Your task to perform on an android device: turn notification dots off Image 0: 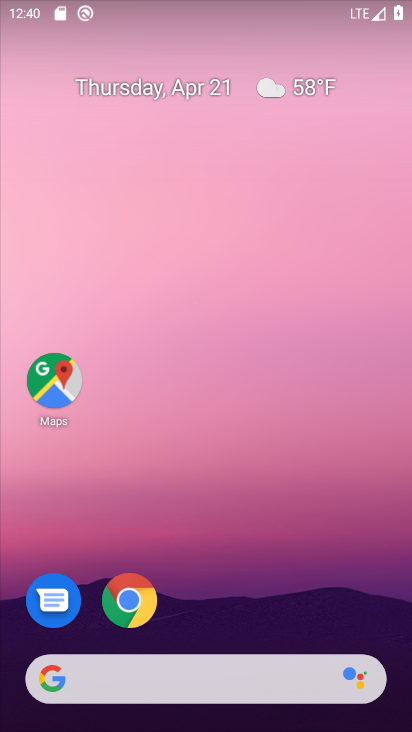
Step 0: drag from (331, 599) to (358, 79)
Your task to perform on an android device: turn notification dots off Image 1: 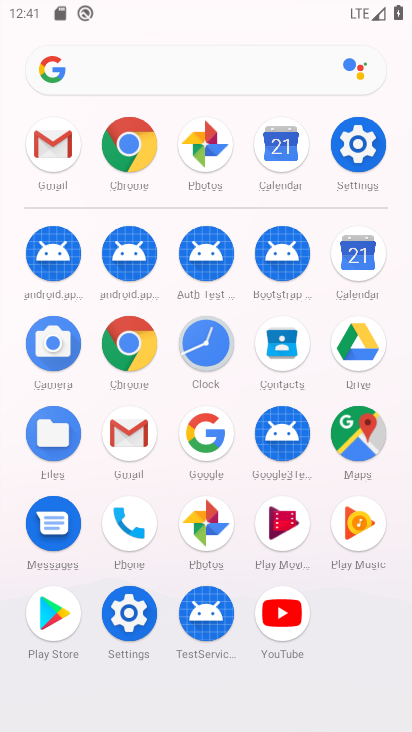
Step 1: click (365, 141)
Your task to perform on an android device: turn notification dots off Image 2: 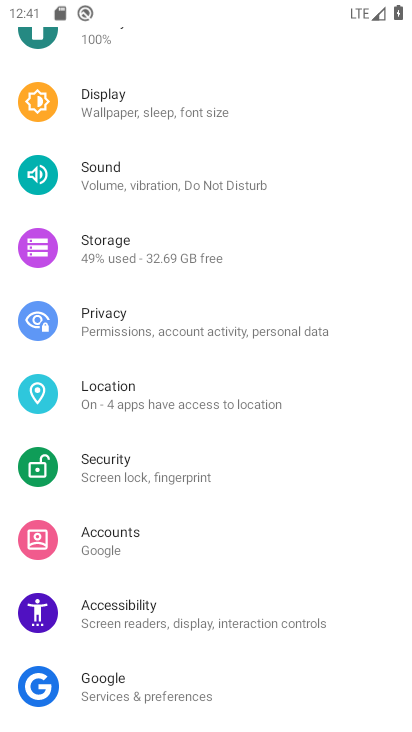
Step 2: drag from (239, 147) to (231, 445)
Your task to perform on an android device: turn notification dots off Image 3: 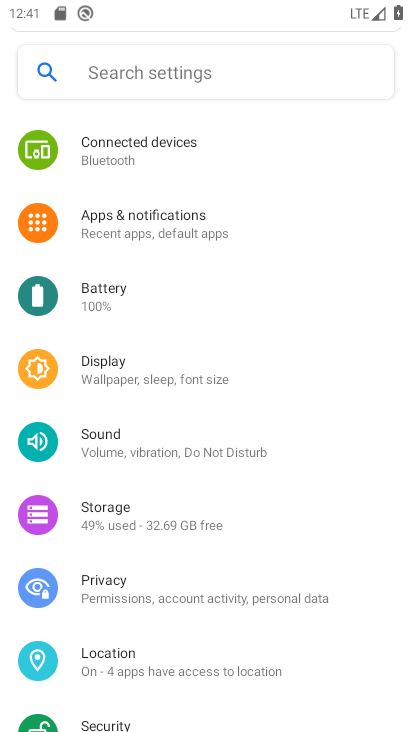
Step 3: click (197, 218)
Your task to perform on an android device: turn notification dots off Image 4: 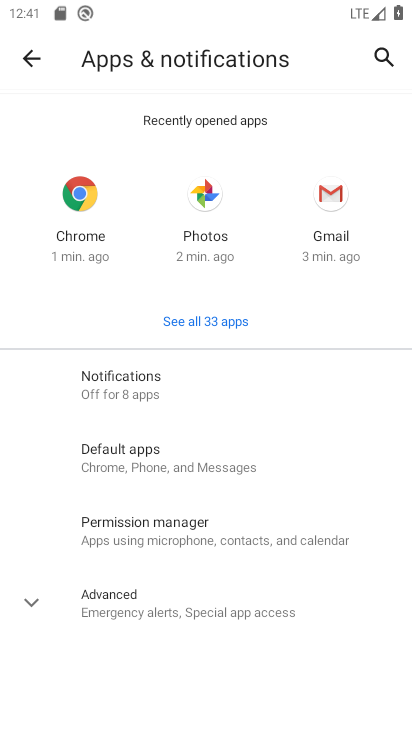
Step 4: click (209, 386)
Your task to perform on an android device: turn notification dots off Image 5: 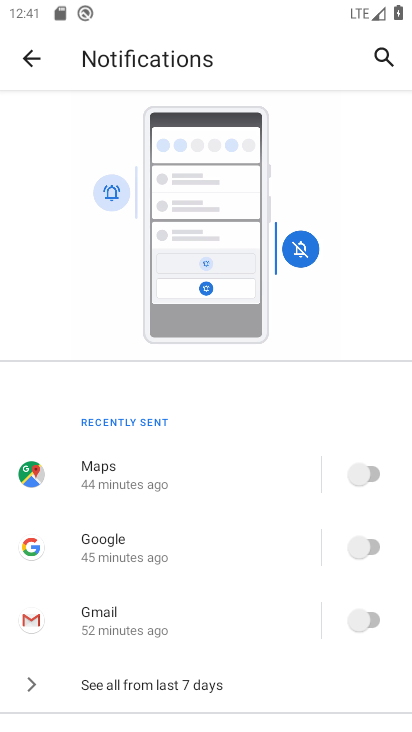
Step 5: drag from (254, 562) to (325, 152)
Your task to perform on an android device: turn notification dots off Image 6: 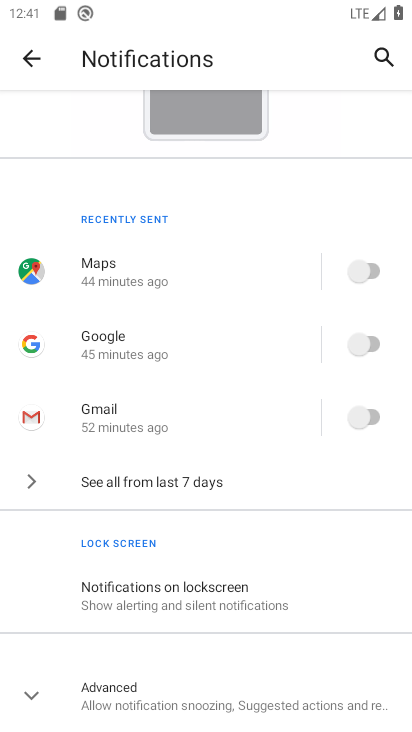
Step 6: click (26, 697)
Your task to perform on an android device: turn notification dots off Image 7: 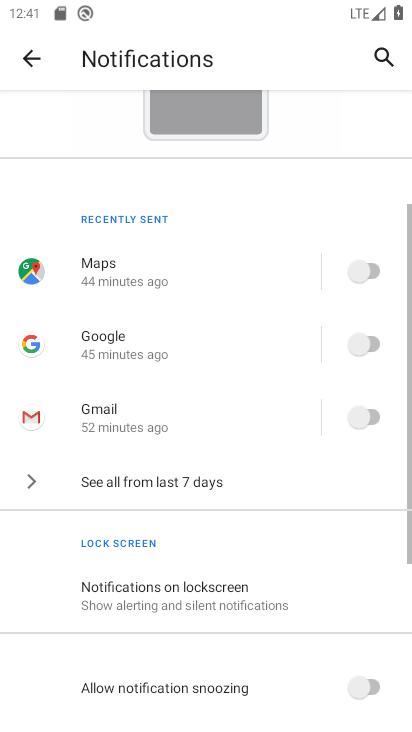
Step 7: drag from (238, 644) to (281, 363)
Your task to perform on an android device: turn notification dots off Image 8: 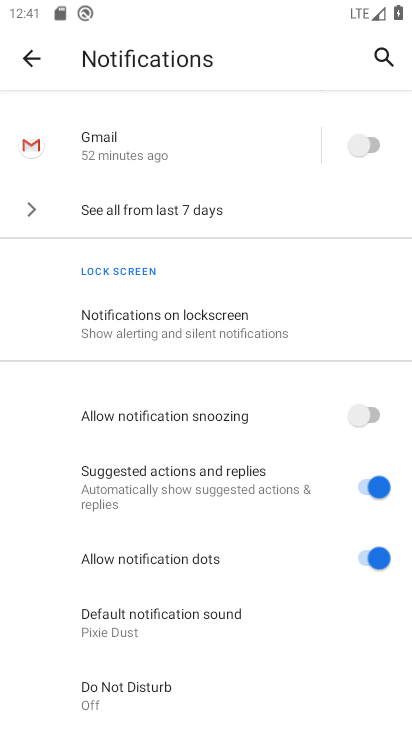
Step 8: click (358, 557)
Your task to perform on an android device: turn notification dots off Image 9: 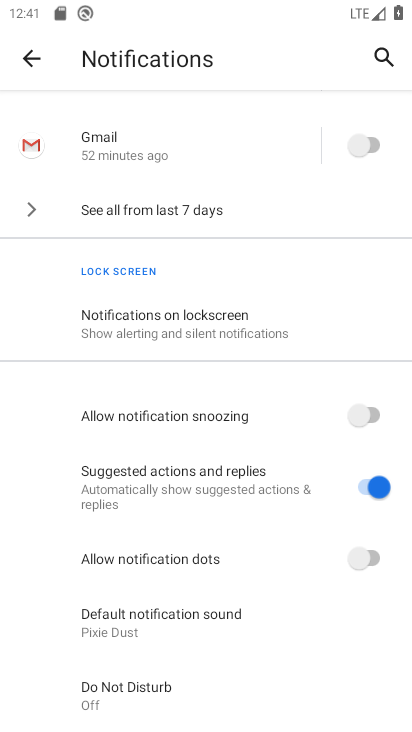
Step 9: task complete